Your task to perform on an android device: Go to display settings Image 0: 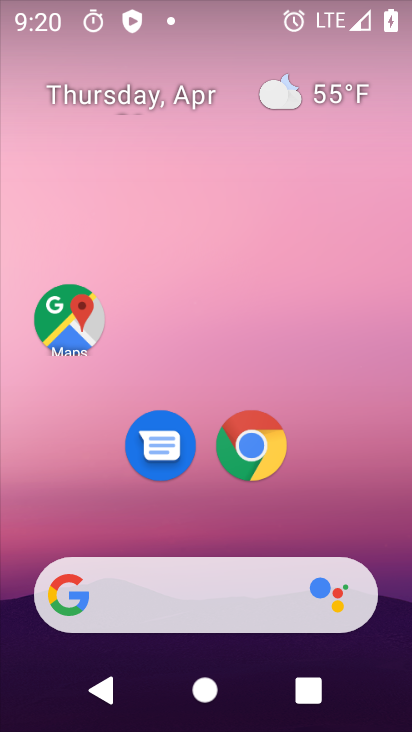
Step 0: drag from (356, 521) to (288, 10)
Your task to perform on an android device: Go to display settings Image 1: 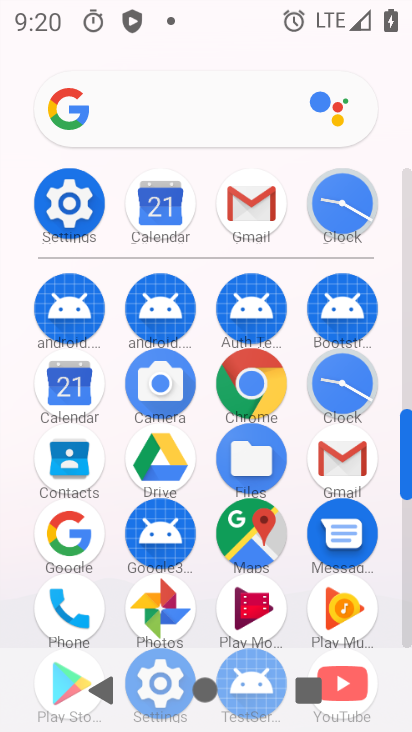
Step 1: click (64, 209)
Your task to perform on an android device: Go to display settings Image 2: 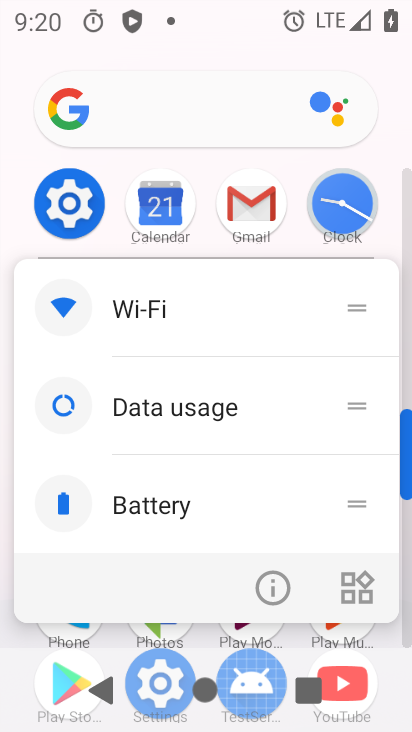
Step 2: click (66, 218)
Your task to perform on an android device: Go to display settings Image 3: 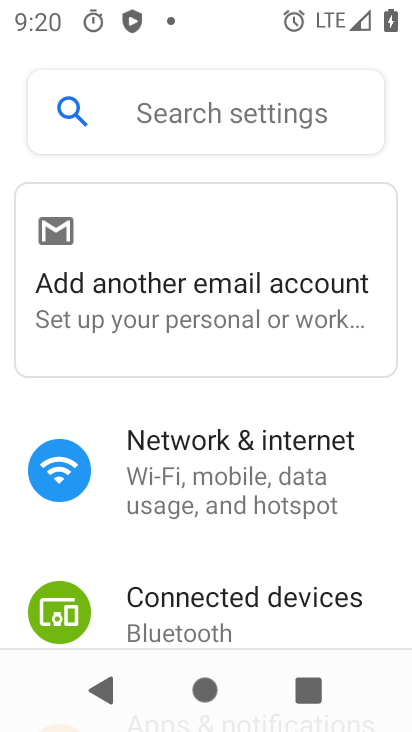
Step 3: drag from (366, 614) to (200, 199)
Your task to perform on an android device: Go to display settings Image 4: 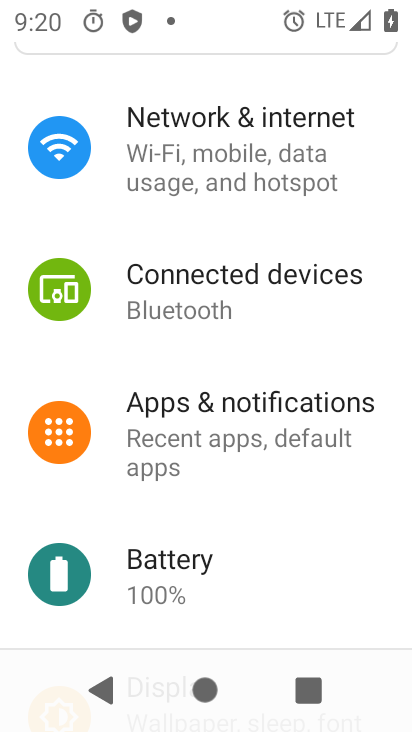
Step 4: drag from (216, 566) to (199, 232)
Your task to perform on an android device: Go to display settings Image 5: 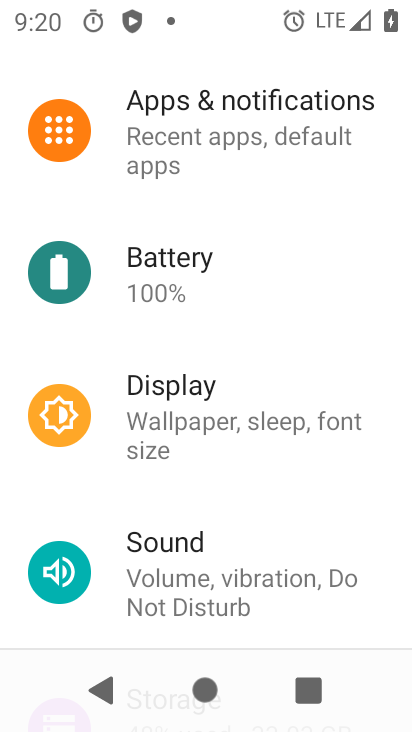
Step 5: click (172, 421)
Your task to perform on an android device: Go to display settings Image 6: 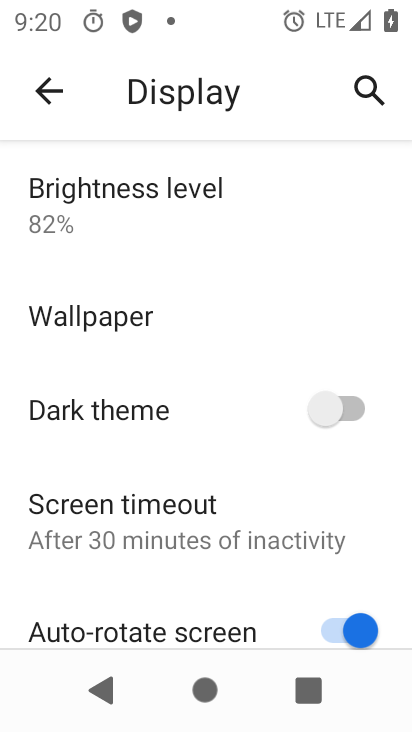
Step 6: task complete